Your task to perform on an android device: Open Chrome and go to settings Image 0: 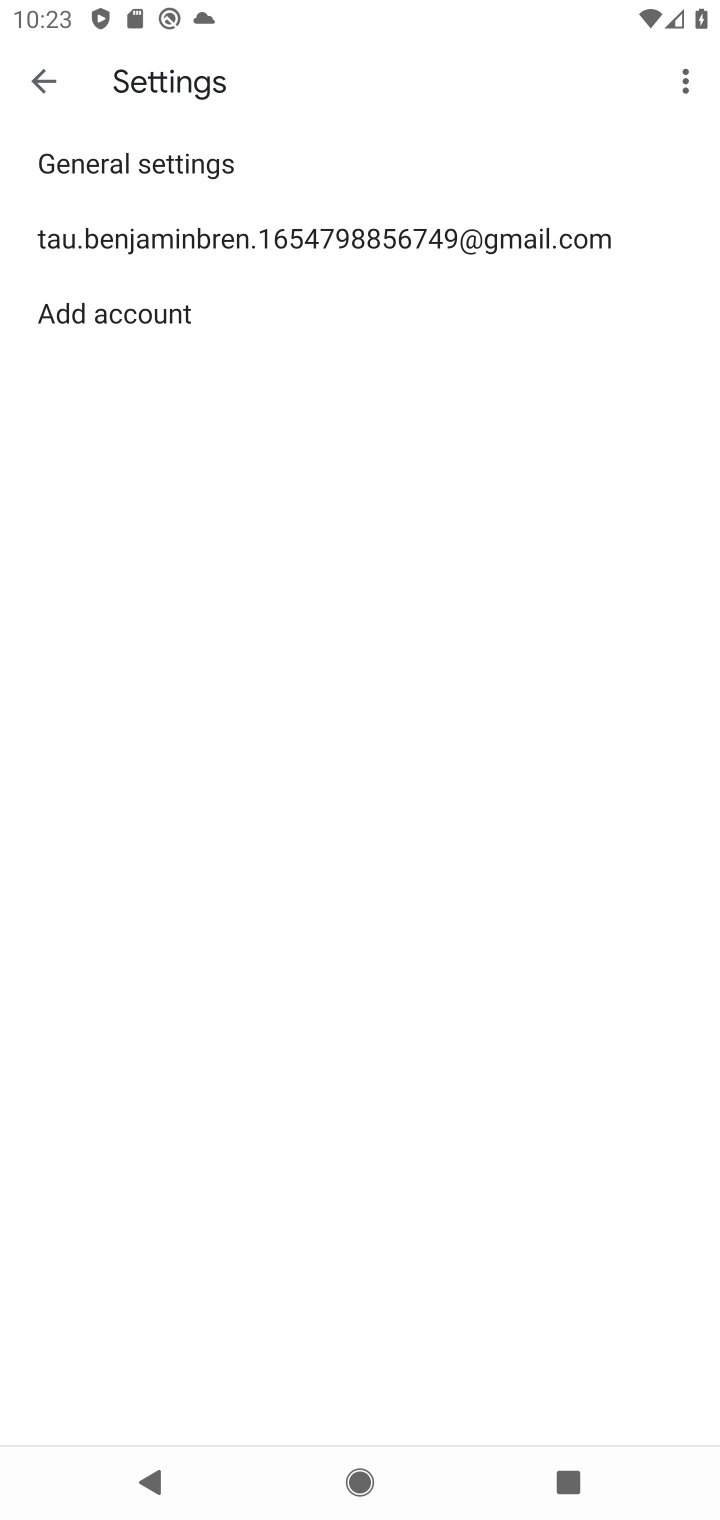
Step 0: press back button
Your task to perform on an android device: Open Chrome and go to settings Image 1: 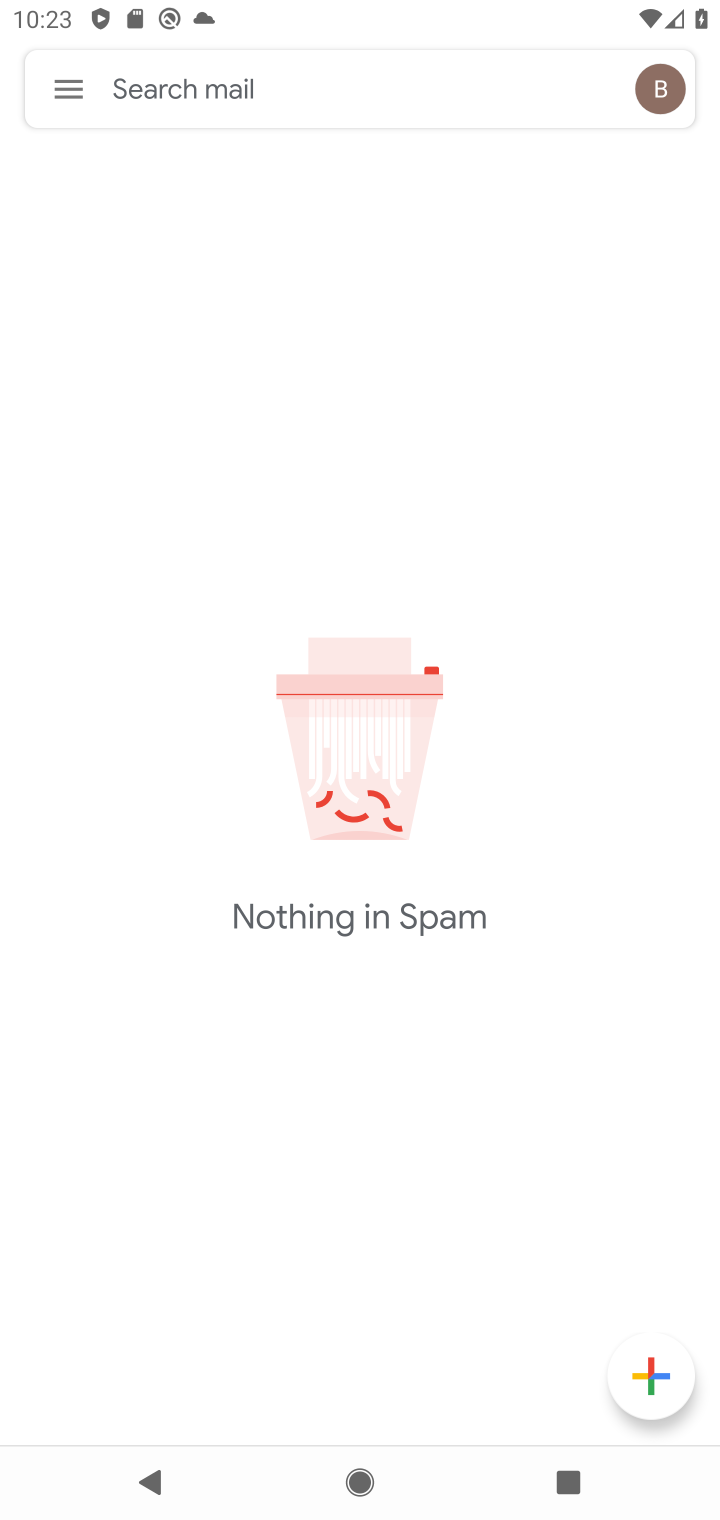
Step 1: press back button
Your task to perform on an android device: Open Chrome and go to settings Image 2: 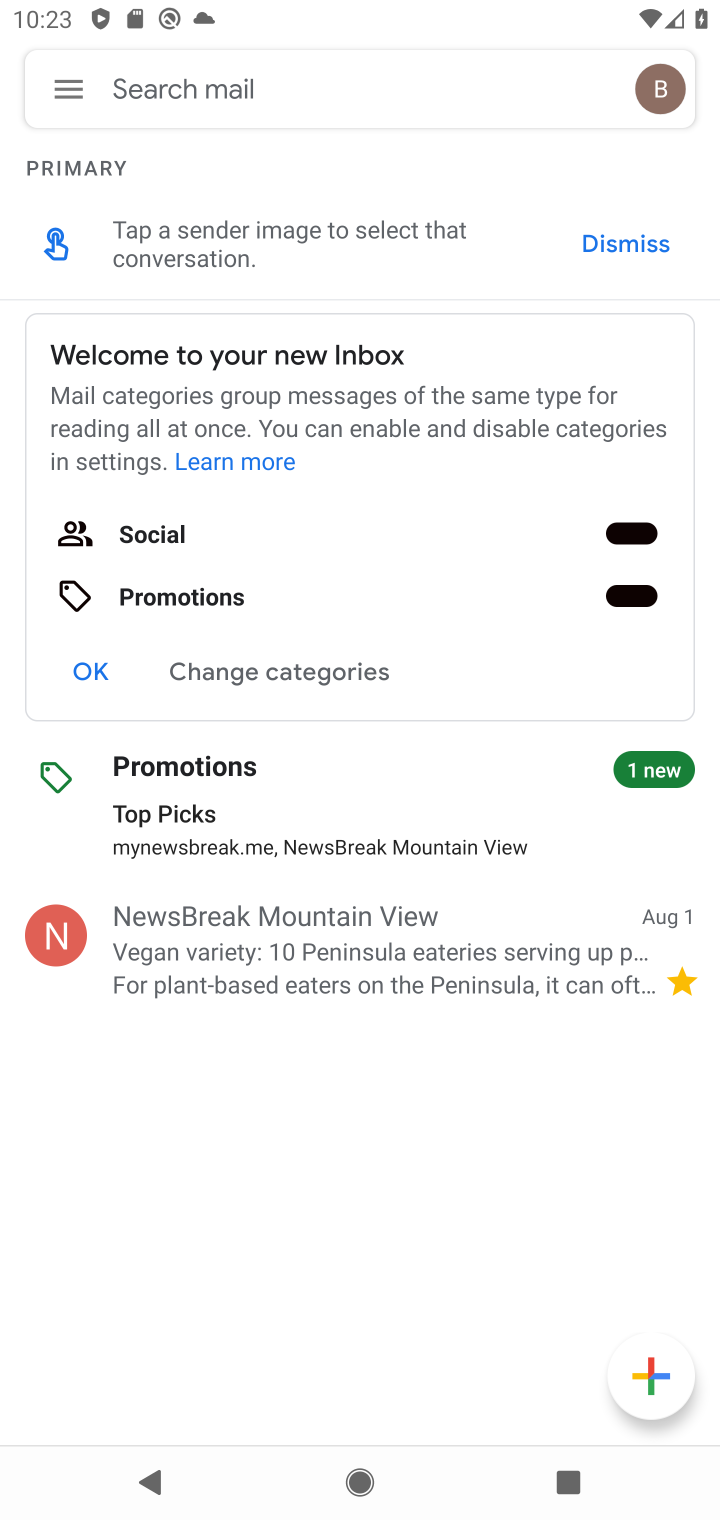
Step 2: press back button
Your task to perform on an android device: Open Chrome and go to settings Image 3: 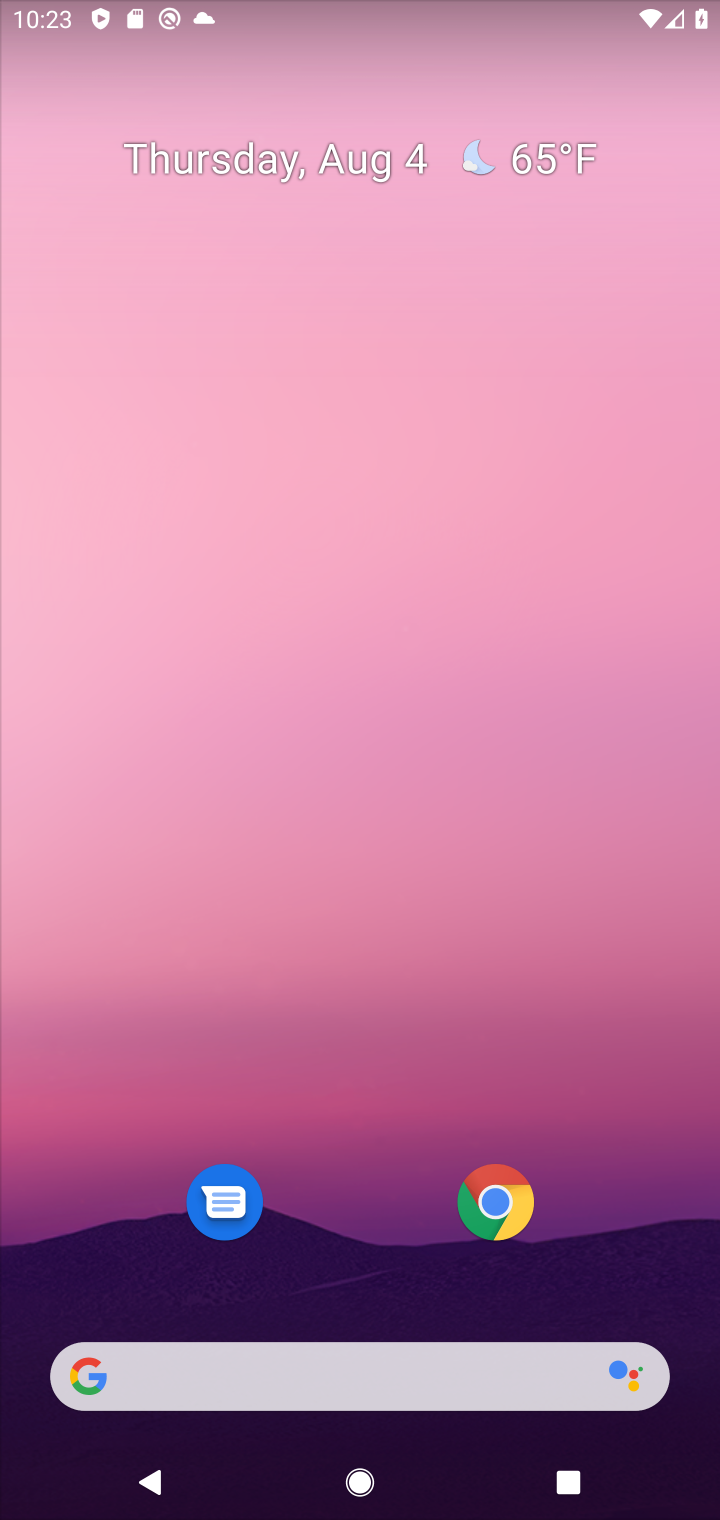
Step 3: drag from (334, 1012) to (350, 205)
Your task to perform on an android device: Open Chrome and go to settings Image 4: 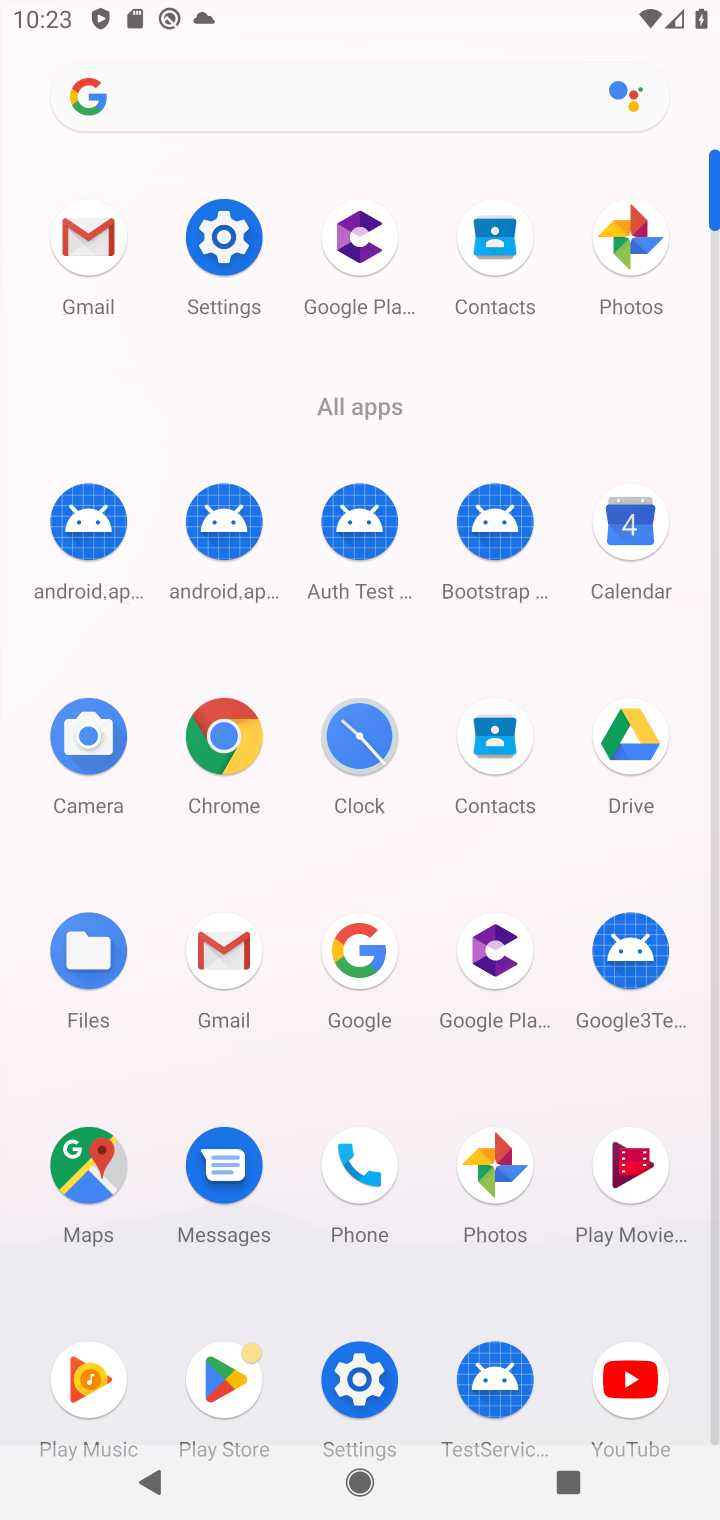
Step 4: click (246, 252)
Your task to perform on an android device: Open Chrome and go to settings Image 5: 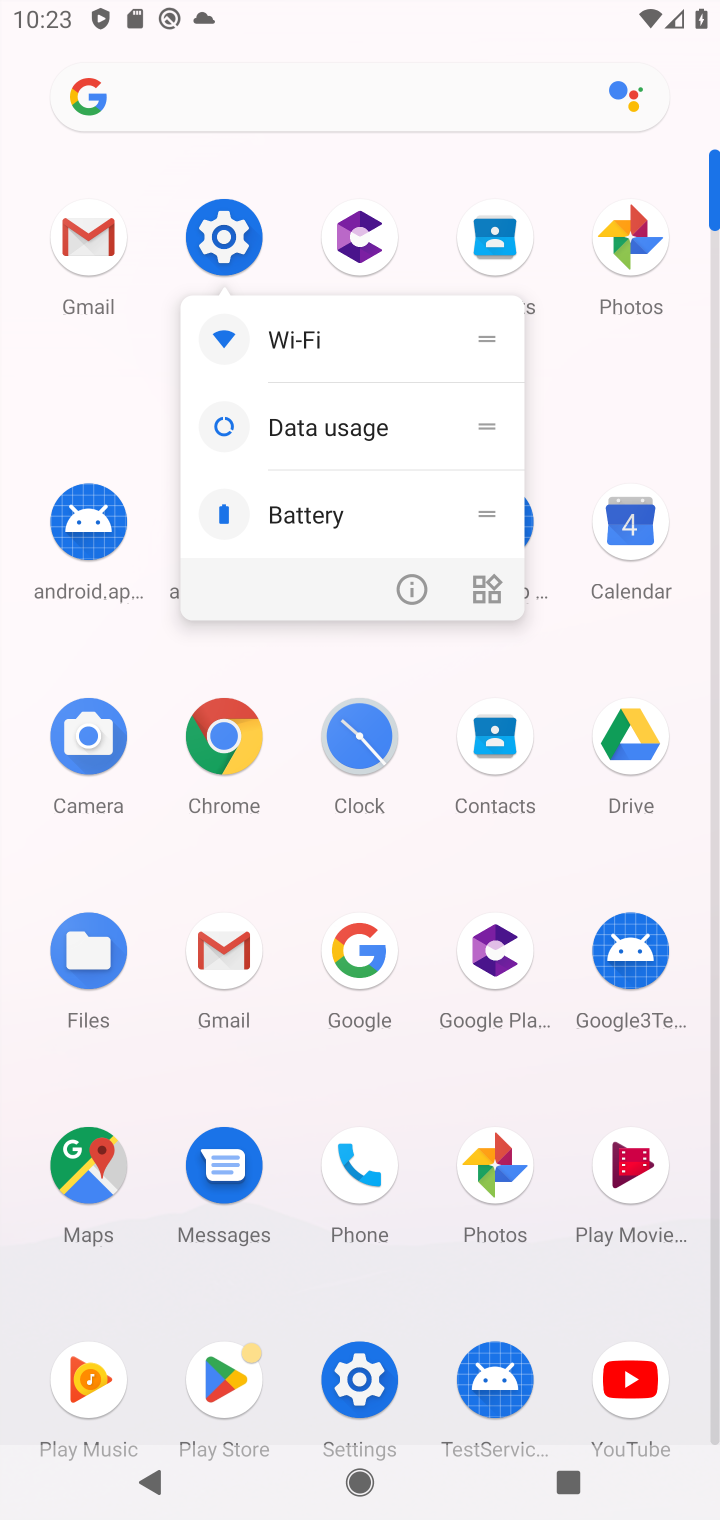
Step 5: click (210, 744)
Your task to perform on an android device: Open Chrome and go to settings Image 6: 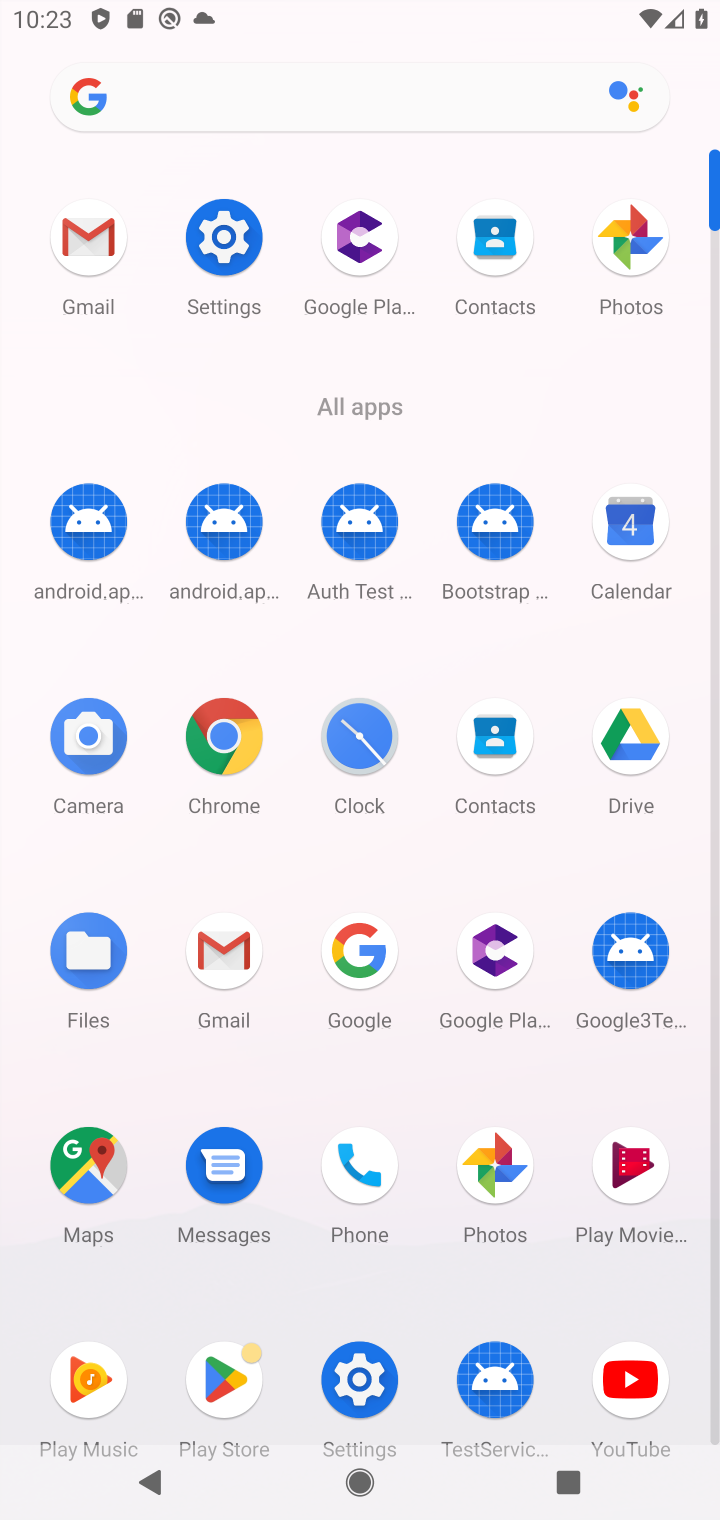
Step 6: click (237, 747)
Your task to perform on an android device: Open Chrome and go to settings Image 7: 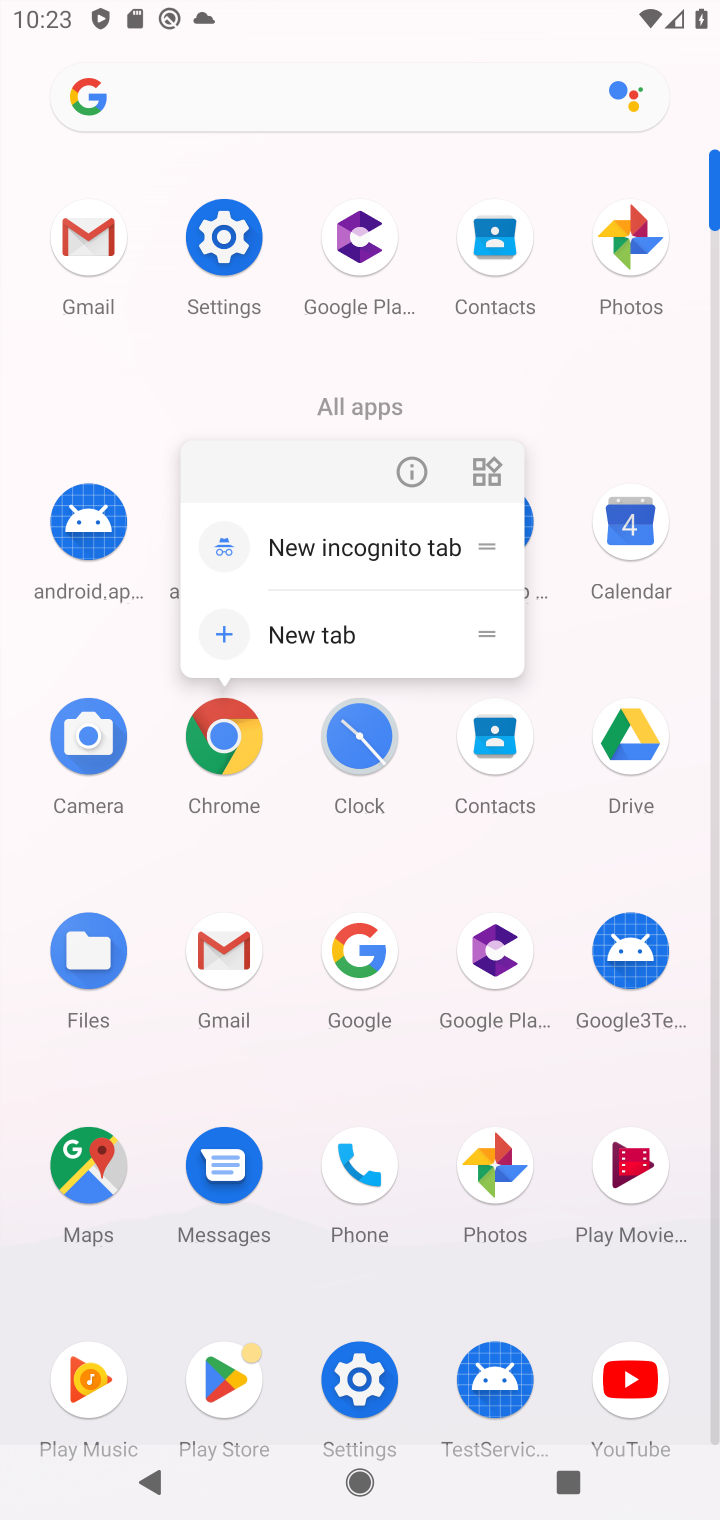
Step 7: click (242, 736)
Your task to perform on an android device: Open Chrome and go to settings Image 8: 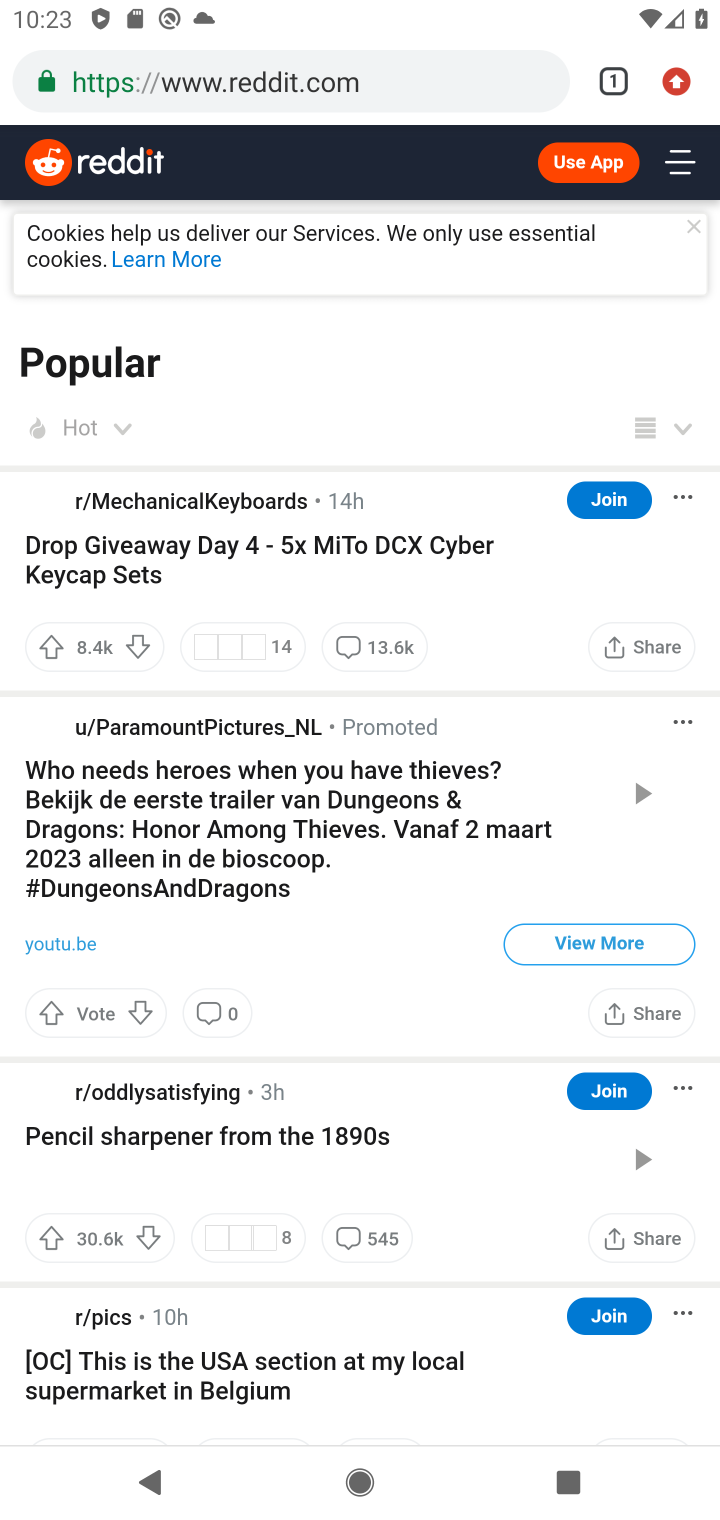
Step 8: task complete